Your task to perform on an android device: Open Google Image 0: 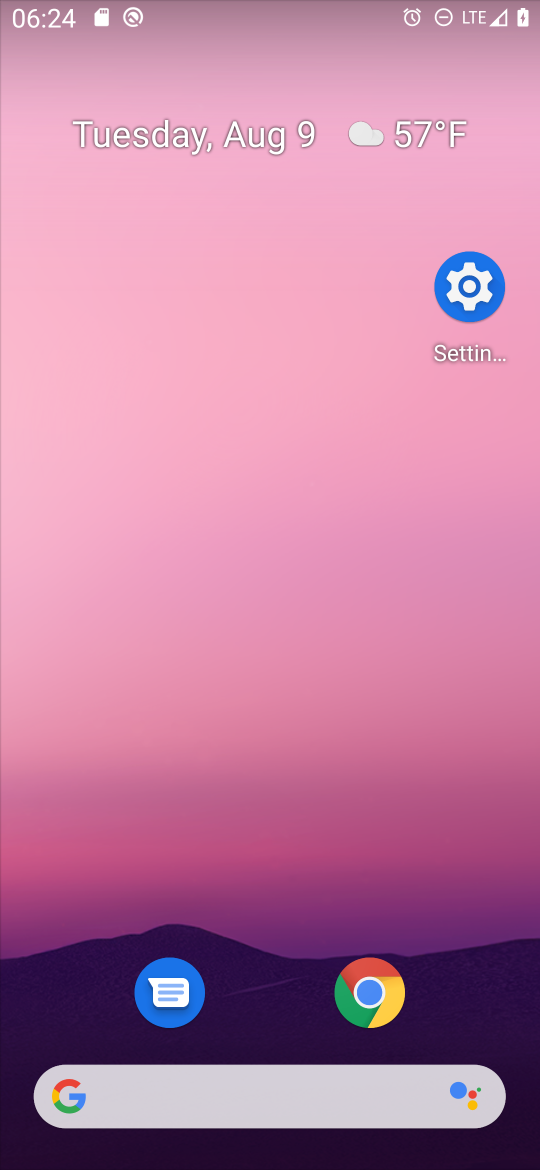
Step 0: drag from (316, 1080) to (234, 276)
Your task to perform on an android device: Open Google Image 1: 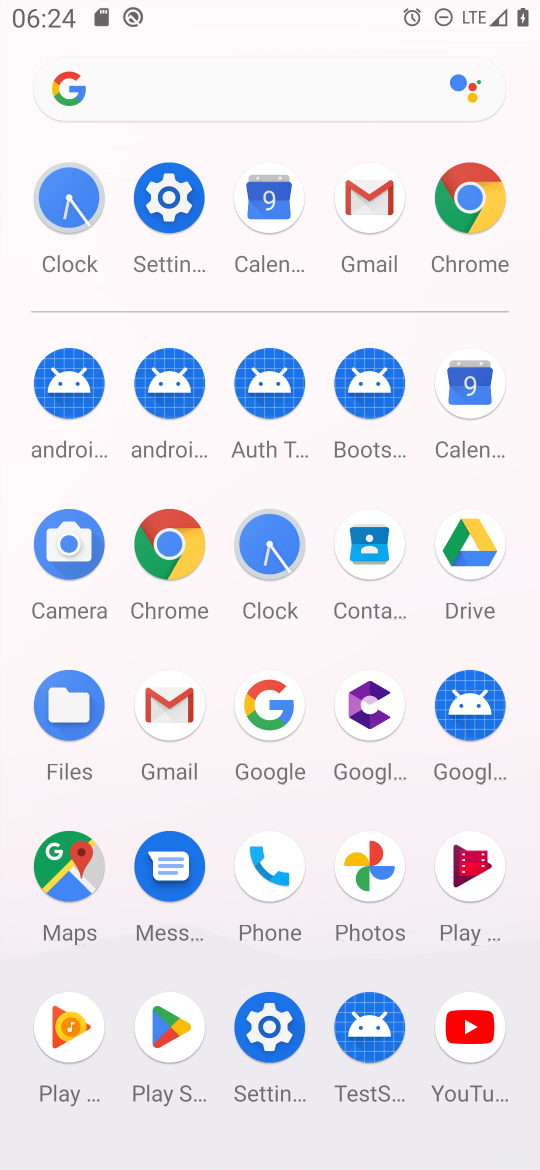
Step 1: click (286, 707)
Your task to perform on an android device: Open Google Image 2: 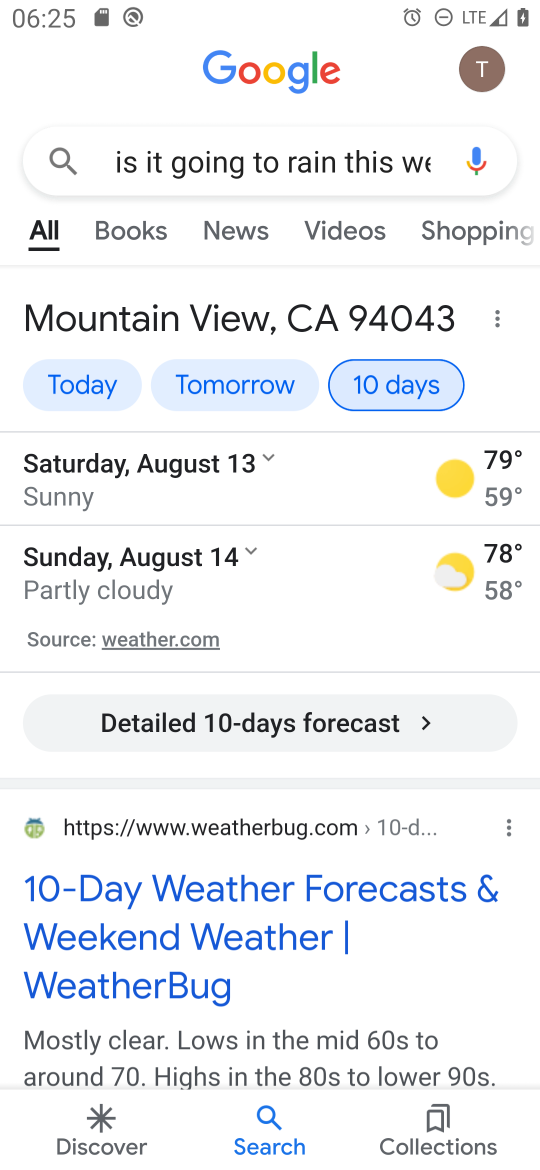
Step 2: task complete